Your task to perform on an android device: Open calendar and show me the first week of next month Image 0: 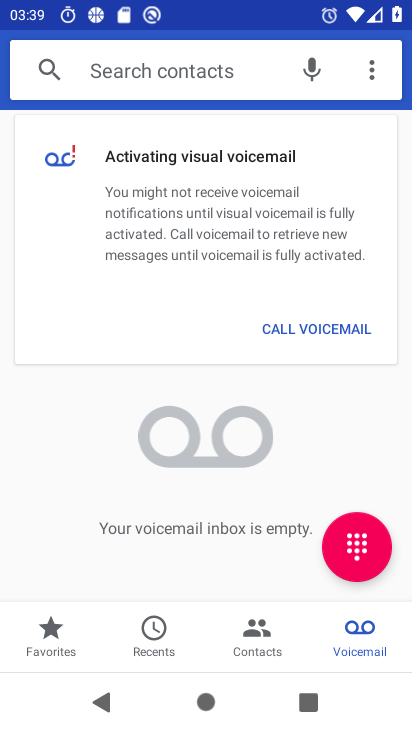
Step 0: press back button
Your task to perform on an android device: Open calendar and show me the first week of next month Image 1: 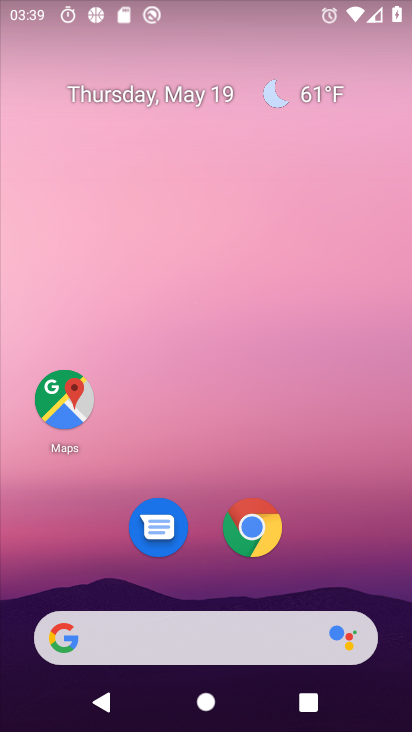
Step 1: drag from (217, 584) to (244, 104)
Your task to perform on an android device: Open calendar and show me the first week of next month Image 2: 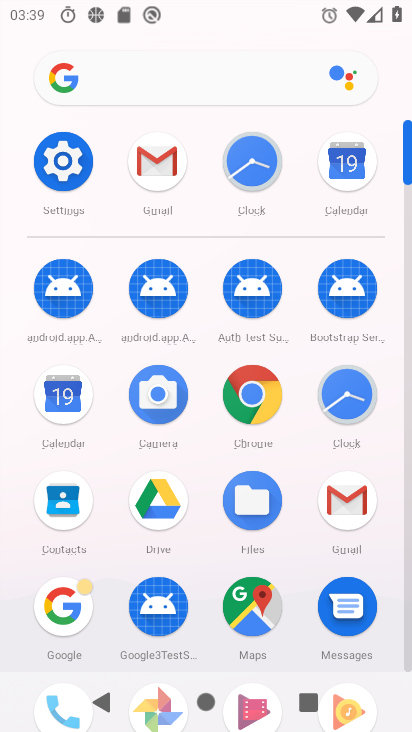
Step 2: click (331, 175)
Your task to perform on an android device: Open calendar and show me the first week of next month Image 3: 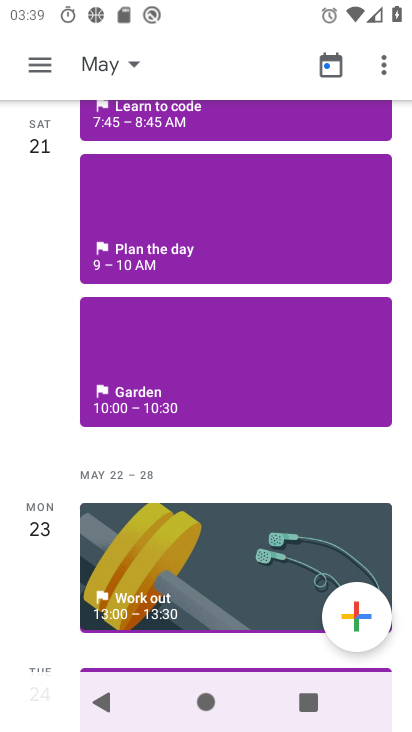
Step 3: click (128, 63)
Your task to perform on an android device: Open calendar and show me the first week of next month Image 4: 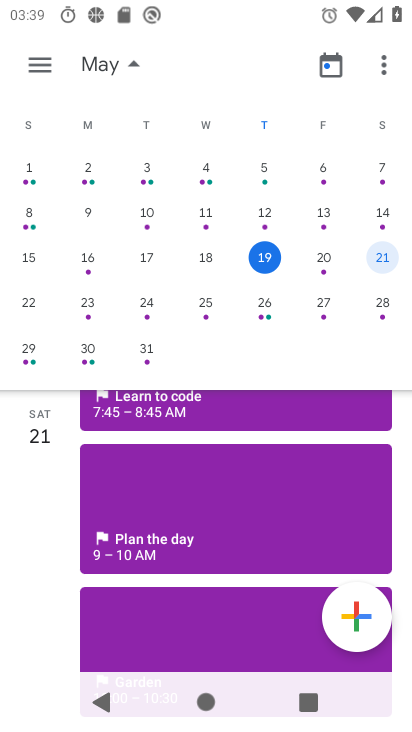
Step 4: task complete